Your task to perform on an android device: open a new tab in the chrome app Image 0: 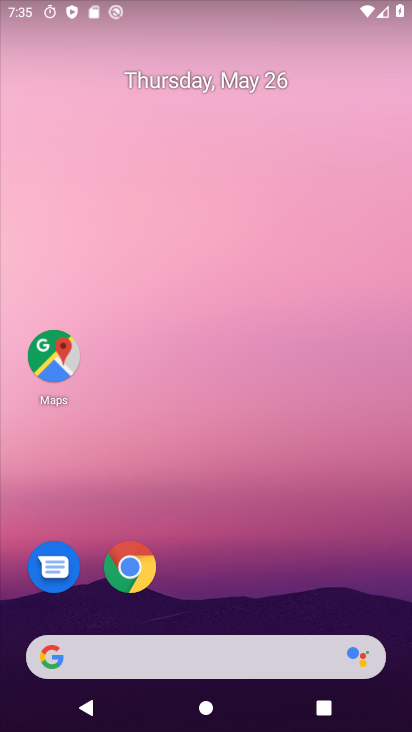
Step 0: click (132, 563)
Your task to perform on an android device: open a new tab in the chrome app Image 1: 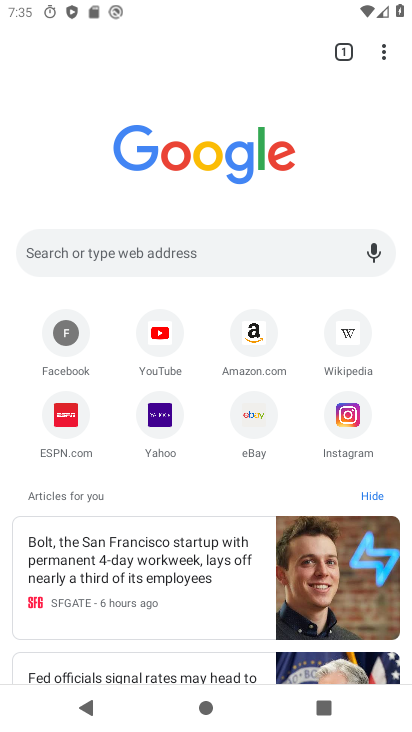
Step 1: task complete